Your task to perform on an android device: Go to battery settings Image 0: 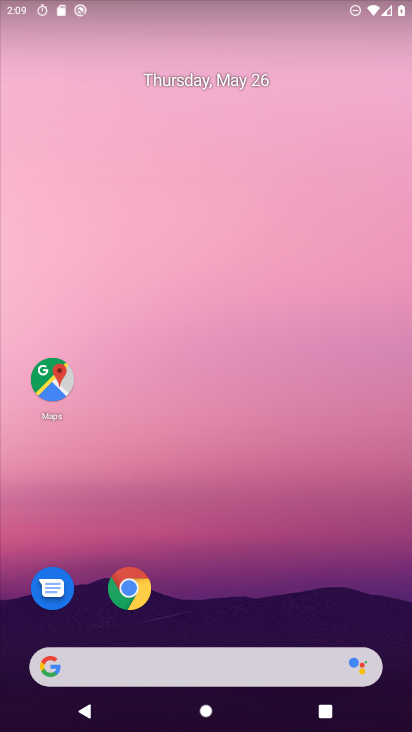
Step 0: drag from (399, 695) to (391, 315)
Your task to perform on an android device: Go to battery settings Image 1: 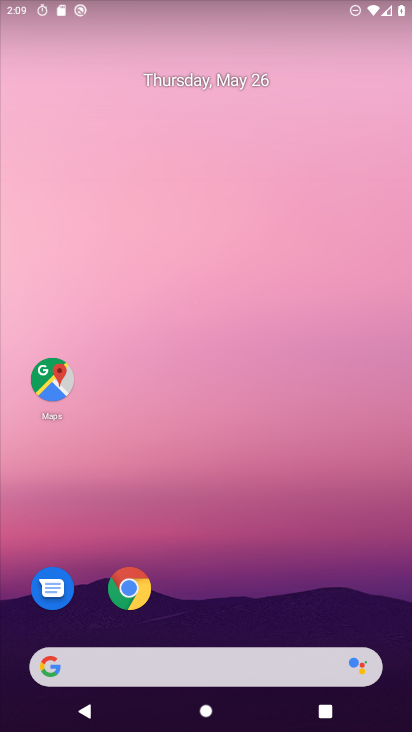
Step 1: drag from (399, 685) to (384, 321)
Your task to perform on an android device: Go to battery settings Image 2: 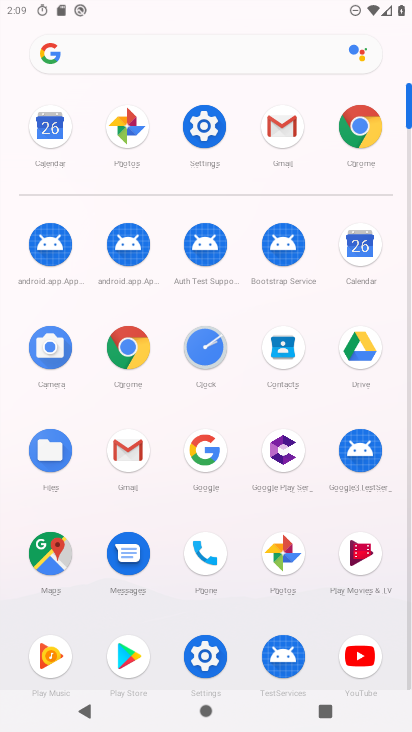
Step 2: click (212, 129)
Your task to perform on an android device: Go to battery settings Image 3: 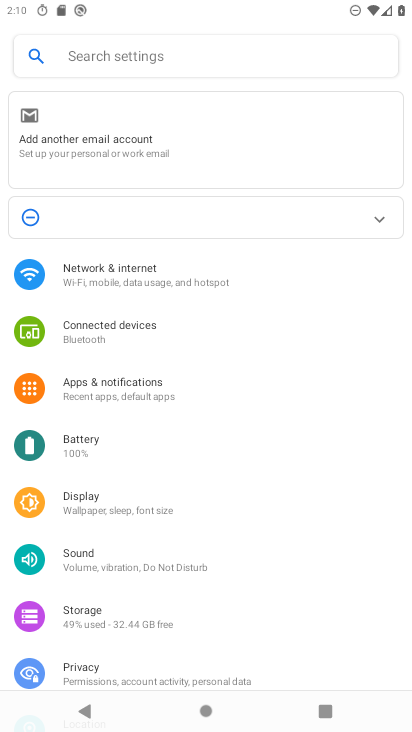
Step 3: drag from (337, 634) to (373, 412)
Your task to perform on an android device: Go to battery settings Image 4: 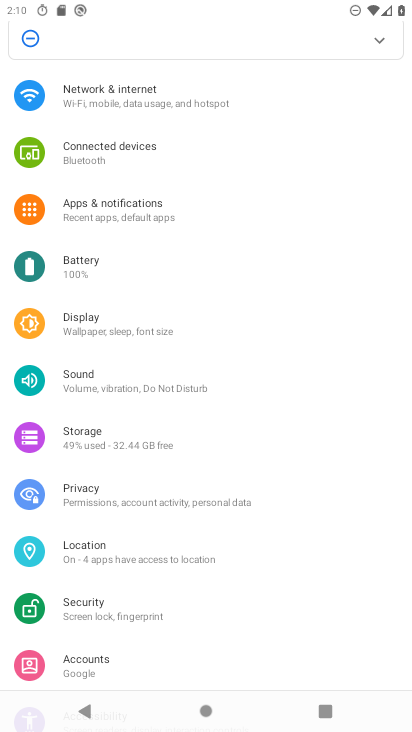
Step 4: click (79, 267)
Your task to perform on an android device: Go to battery settings Image 5: 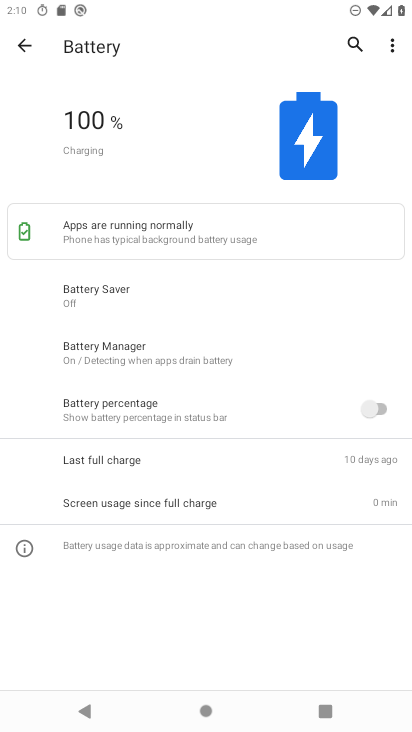
Step 5: task complete